Your task to perform on an android device: check storage Image 0: 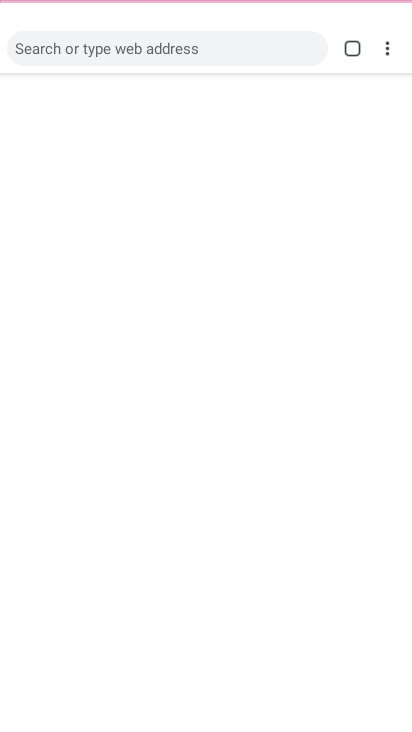
Step 0: press home button
Your task to perform on an android device: check storage Image 1: 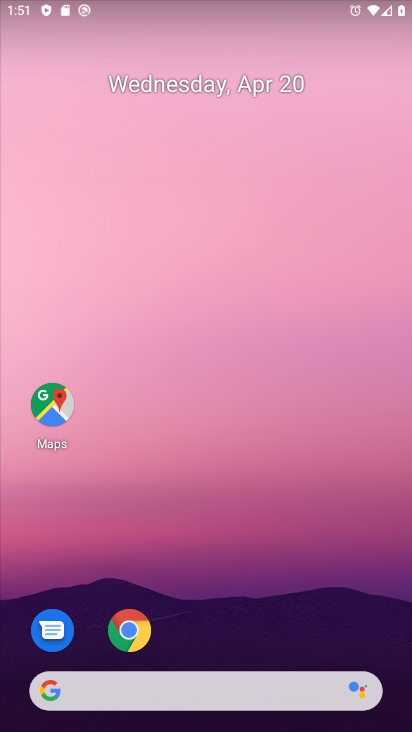
Step 1: drag from (211, 602) to (93, 92)
Your task to perform on an android device: check storage Image 2: 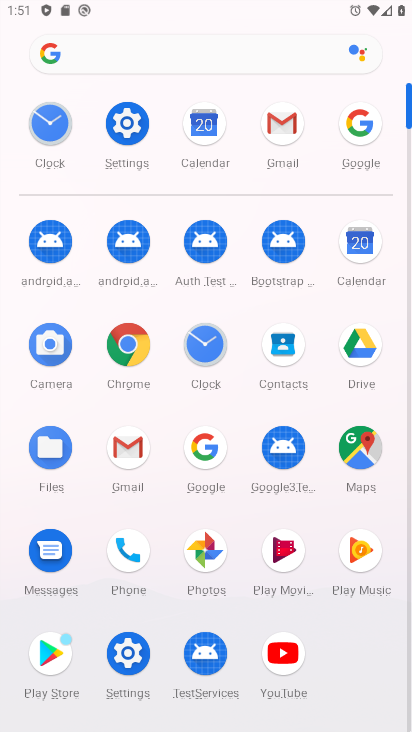
Step 2: click (128, 133)
Your task to perform on an android device: check storage Image 3: 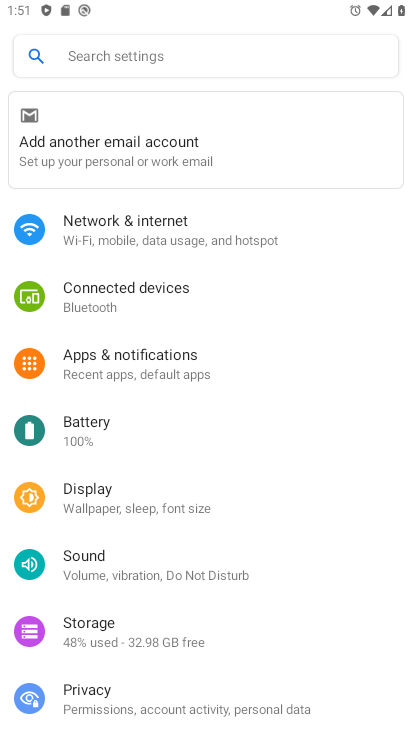
Step 3: click (96, 629)
Your task to perform on an android device: check storage Image 4: 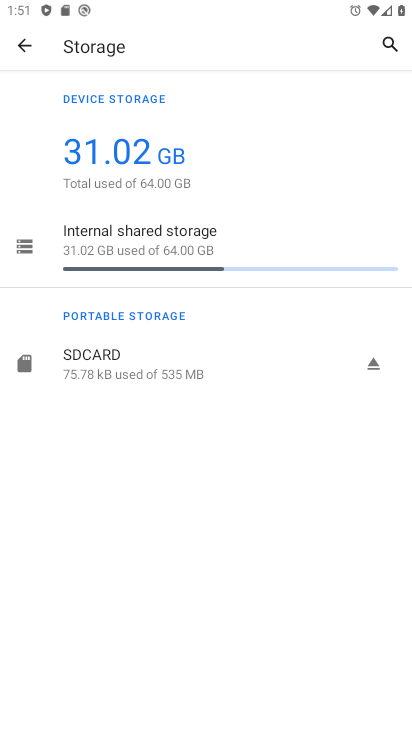
Step 4: task complete